Your task to perform on an android device: Open privacy settings Image 0: 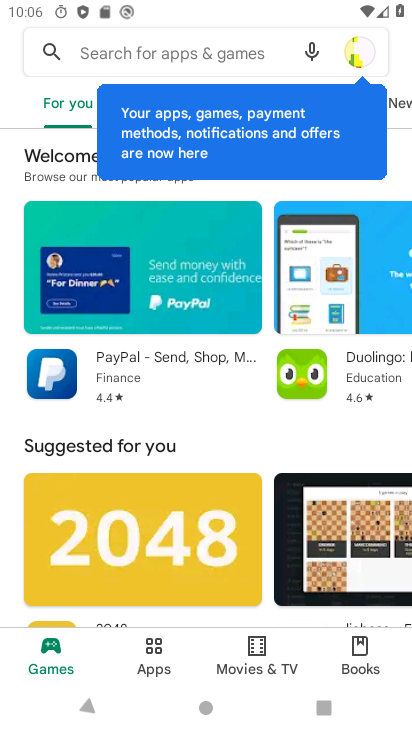
Step 0: press home button
Your task to perform on an android device: Open privacy settings Image 1: 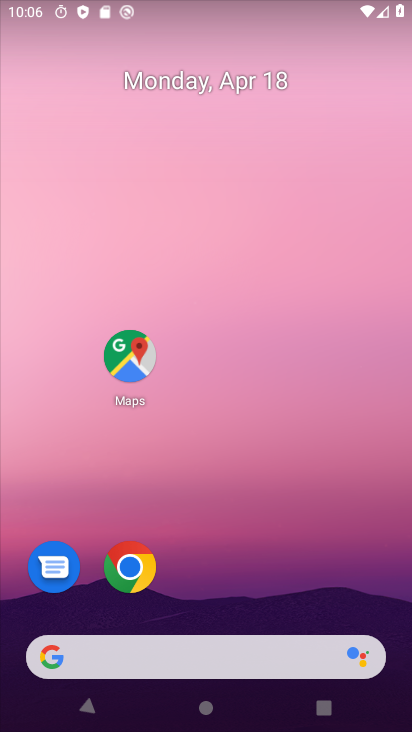
Step 1: drag from (246, 676) to (328, 335)
Your task to perform on an android device: Open privacy settings Image 2: 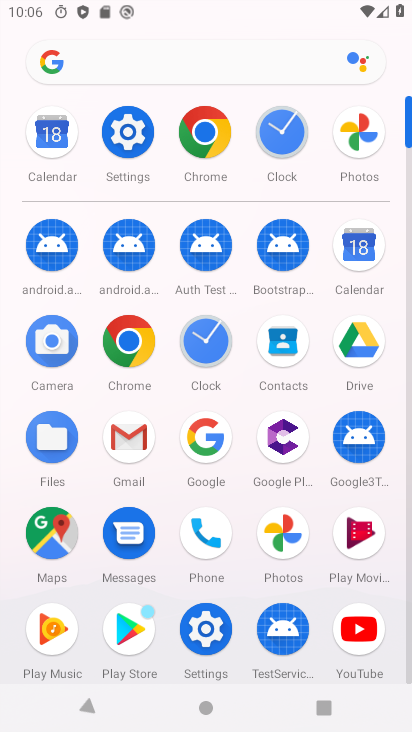
Step 2: click (197, 631)
Your task to perform on an android device: Open privacy settings Image 3: 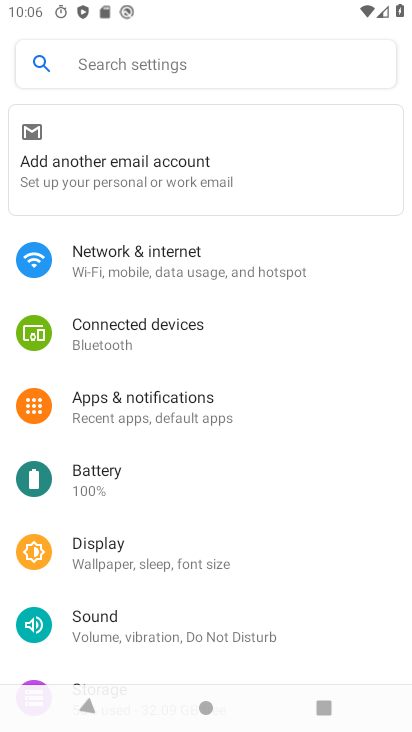
Step 3: drag from (139, 532) to (338, 222)
Your task to perform on an android device: Open privacy settings Image 4: 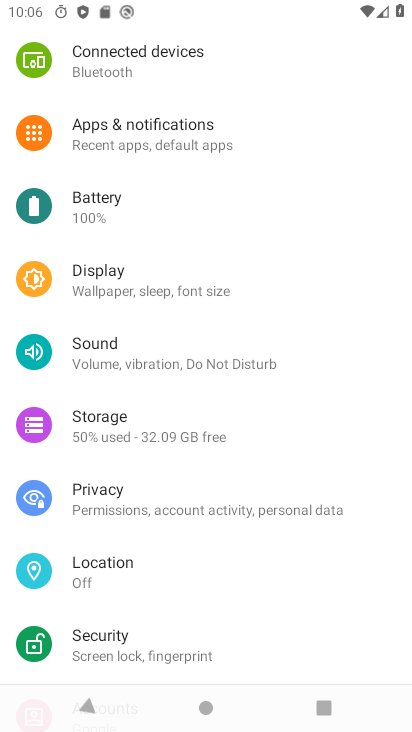
Step 4: click (127, 493)
Your task to perform on an android device: Open privacy settings Image 5: 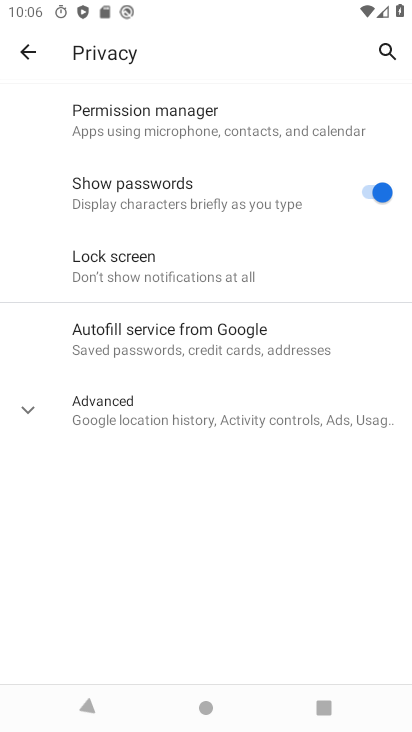
Step 5: click (92, 427)
Your task to perform on an android device: Open privacy settings Image 6: 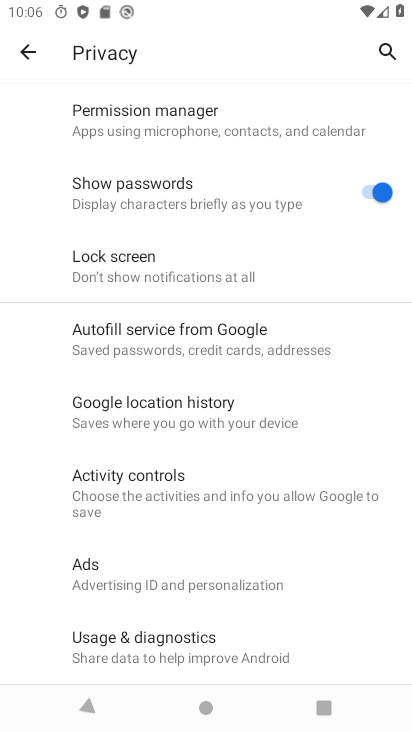
Step 6: task complete